Your task to perform on an android device: Open the calendar and show me this week's events? Image 0: 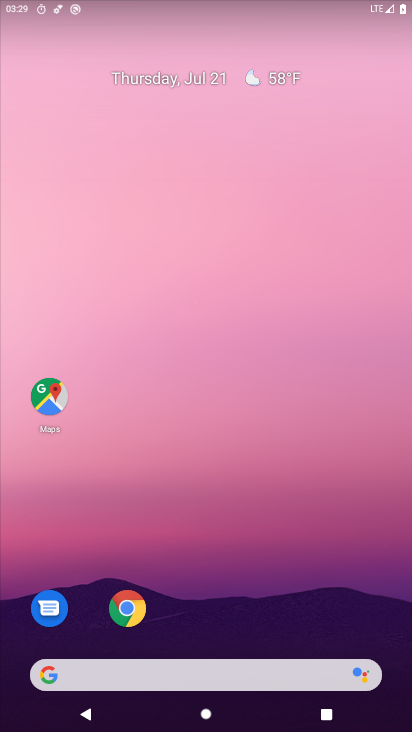
Step 0: drag from (231, 616) to (256, 115)
Your task to perform on an android device: Open the calendar and show me this week's events? Image 1: 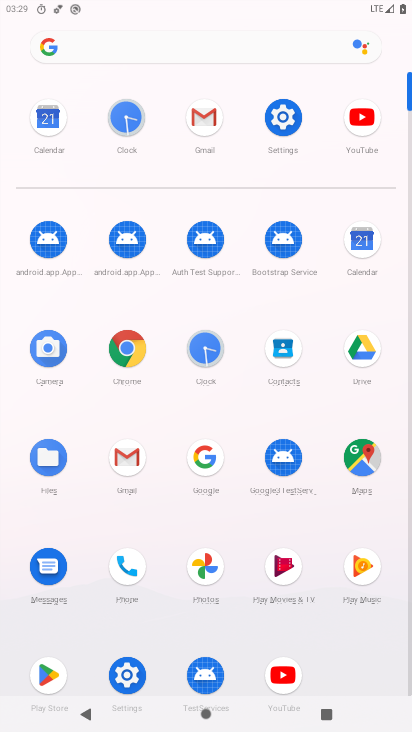
Step 1: click (355, 235)
Your task to perform on an android device: Open the calendar and show me this week's events? Image 2: 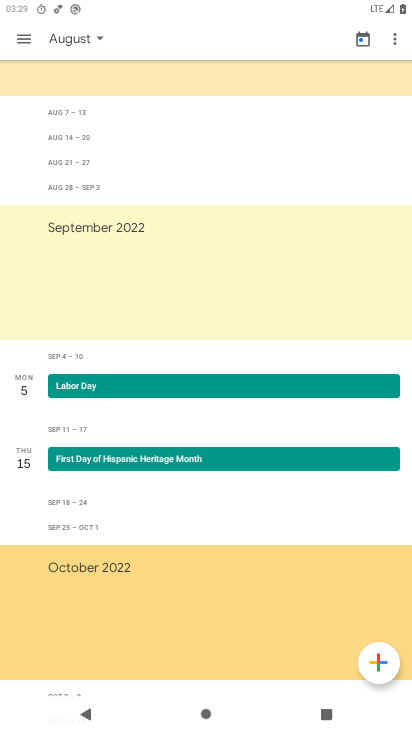
Step 2: click (16, 40)
Your task to perform on an android device: Open the calendar and show me this week's events? Image 3: 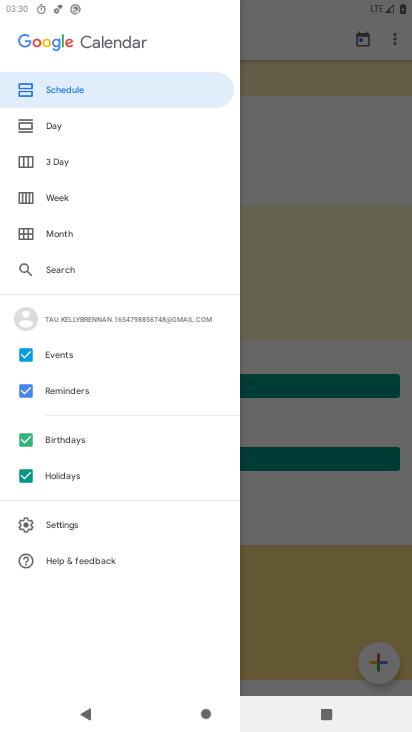
Step 3: click (26, 473)
Your task to perform on an android device: Open the calendar and show me this week's events? Image 4: 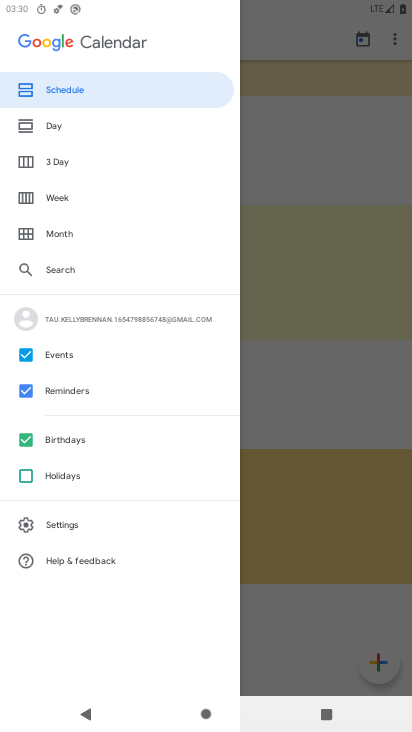
Step 4: click (25, 434)
Your task to perform on an android device: Open the calendar and show me this week's events? Image 5: 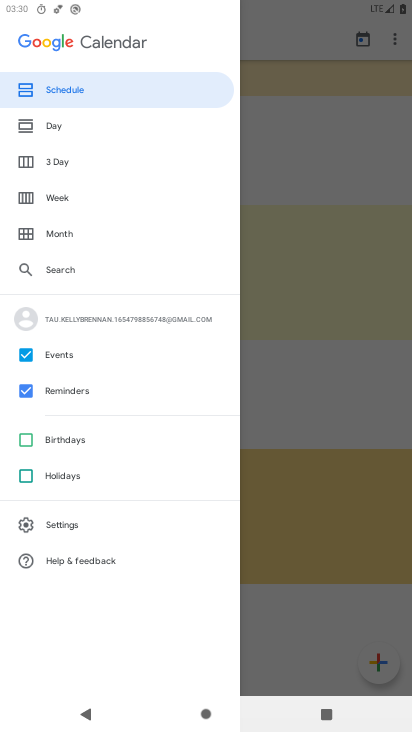
Step 5: click (28, 387)
Your task to perform on an android device: Open the calendar and show me this week's events? Image 6: 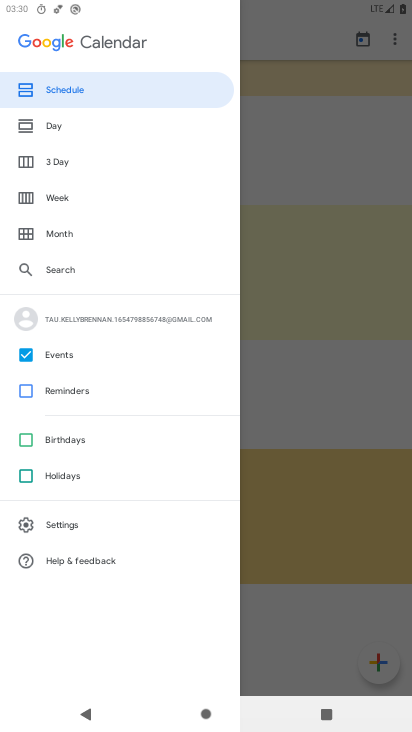
Step 6: click (63, 86)
Your task to perform on an android device: Open the calendar and show me this week's events? Image 7: 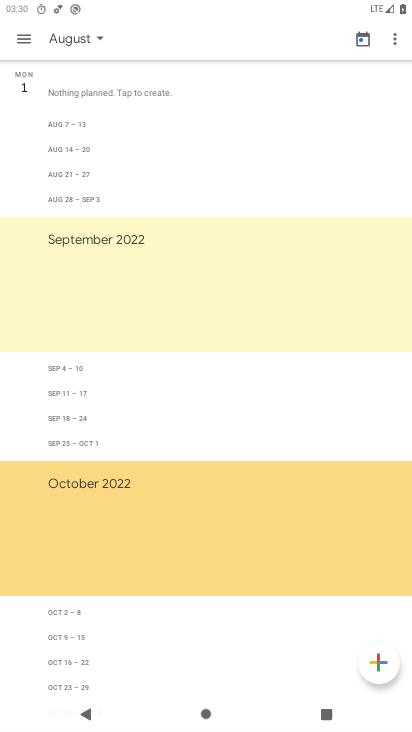
Step 7: click (100, 36)
Your task to perform on an android device: Open the calendar and show me this week's events? Image 8: 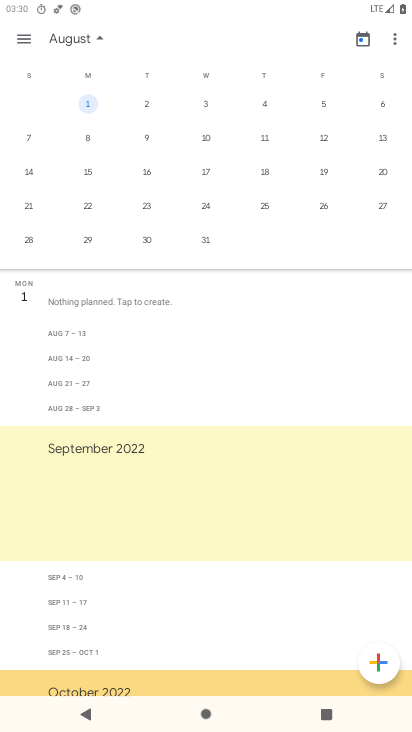
Step 8: drag from (36, 180) to (383, 160)
Your task to perform on an android device: Open the calendar and show me this week's events? Image 9: 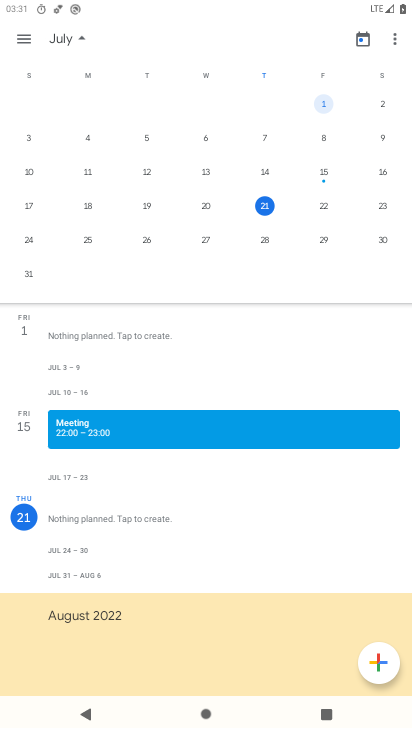
Step 9: click (21, 35)
Your task to perform on an android device: Open the calendar and show me this week's events? Image 10: 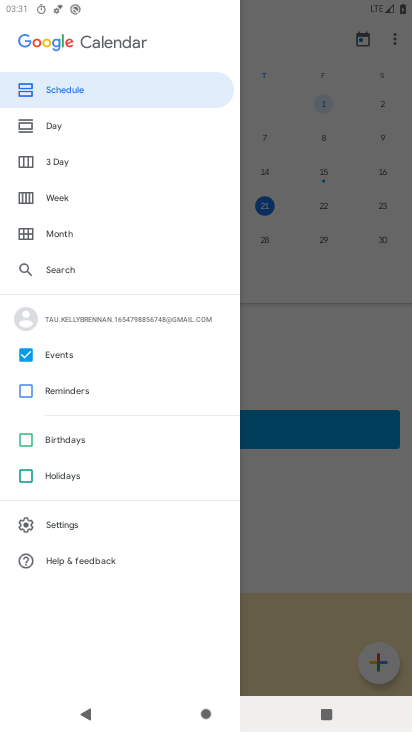
Step 10: click (61, 192)
Your task to perform on an android device: Open the calendar and show me this week's events? Image 11: 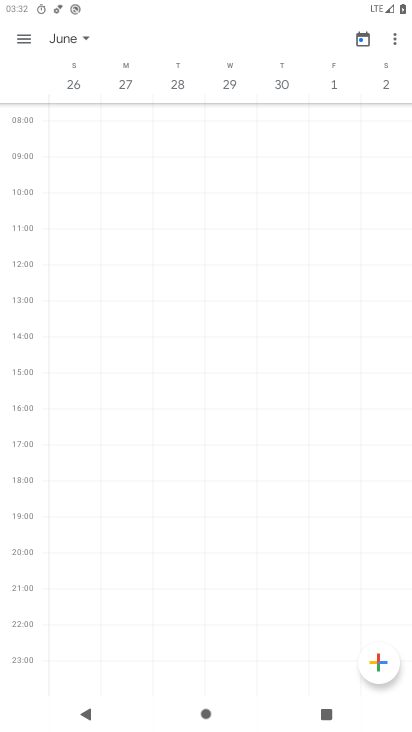
Step 11: drag from (63, 86) to (381, 76)
Your task to perform on an android device: Open the calendar and show me this week's events? Image 12: 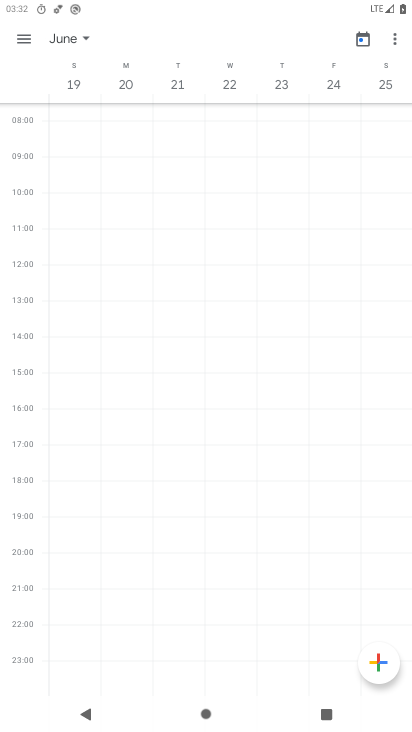
Step 12: drag from (394, 82) to (0, 92)
Your task to perform on an android device: Open the calendar and show me this week's events? Image 13: 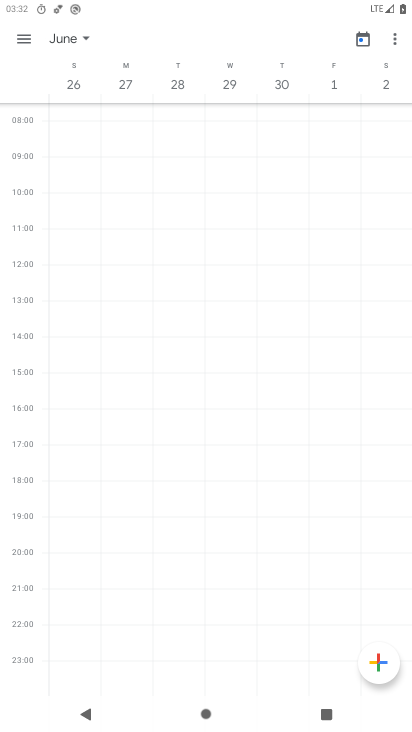
Step 13: click (83, 38)
Your task to perform on an android device: Open the calendar and show me this week's events? Image 14: 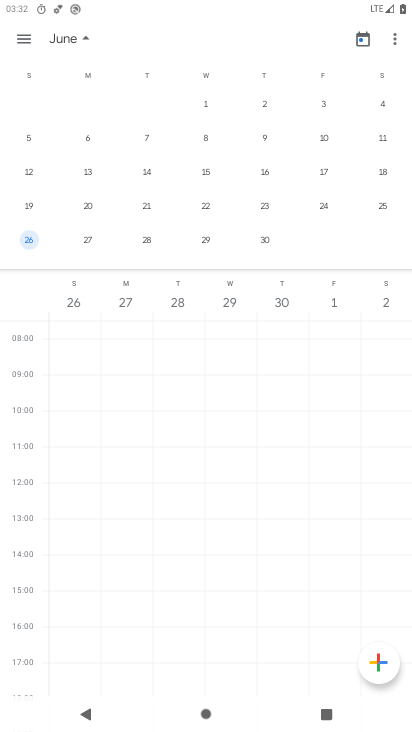
Step 14: drag from (299, 158) to (0, 194)
Your task to perform on an android device: Open the calendar and show me this week's events? Image 15: 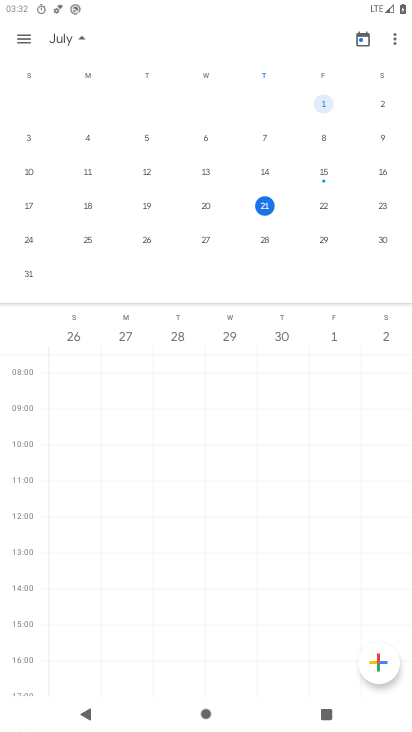
Step 15: click (267, 205)
Your task to perform on an android device: Open the calendar and show me this week's events? Image 16: 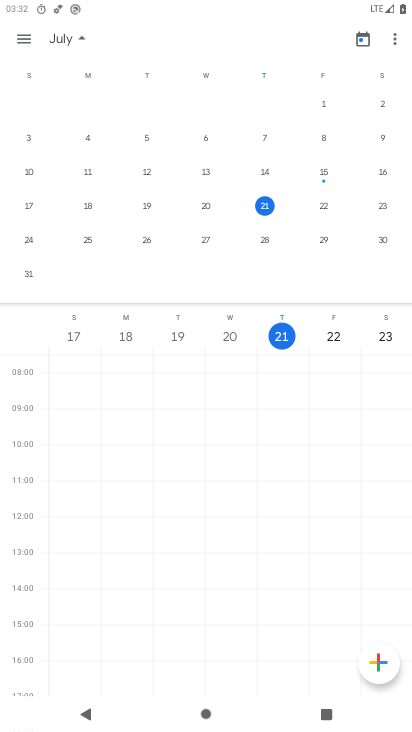
Step 16: click (70, 33)
Your task to perform on an android device: Open the calendar and show me this week's events? Image 17: 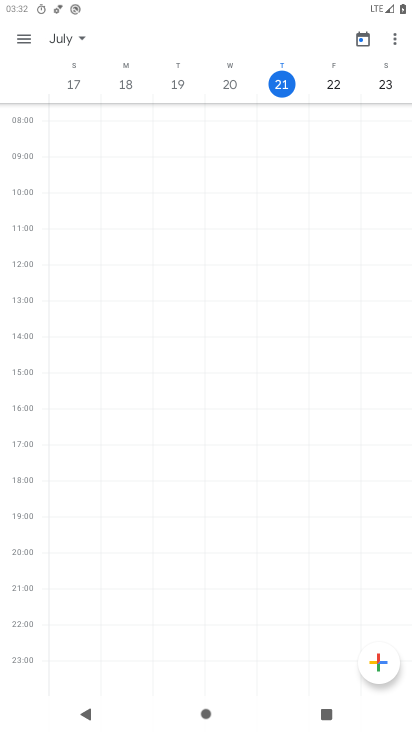
Step 17: click (275, 80)
Your task to perform on an android device: Open the calendar and show me this week's events? Image 18: 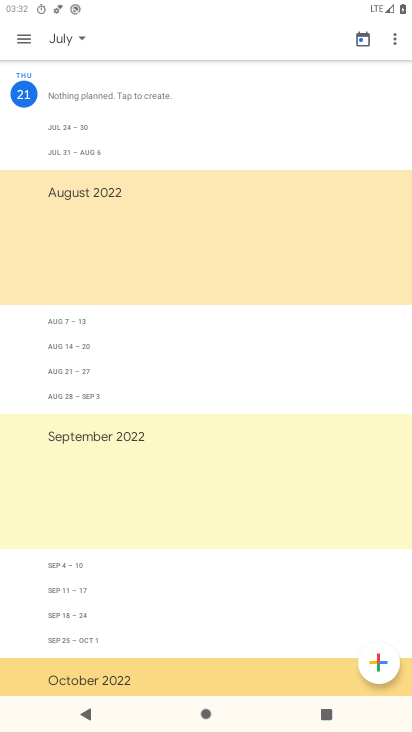
Step 18: task complete